Your task to perform on an android device: check google app version Image 0: 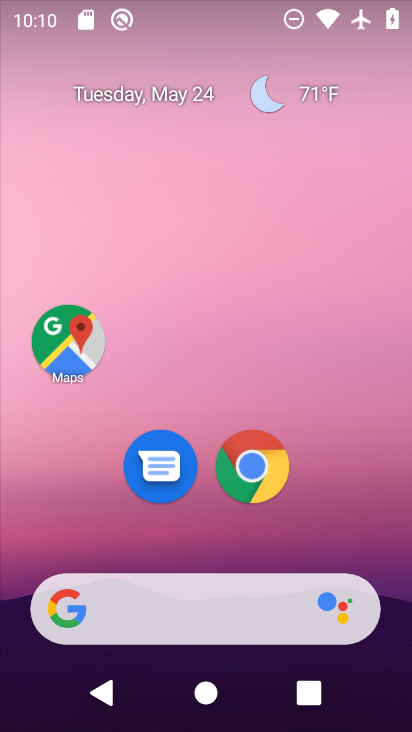
Step 0: drag from (203, 554) to (274, 2)
Your task to perform on an android device: check google app version Image 1: 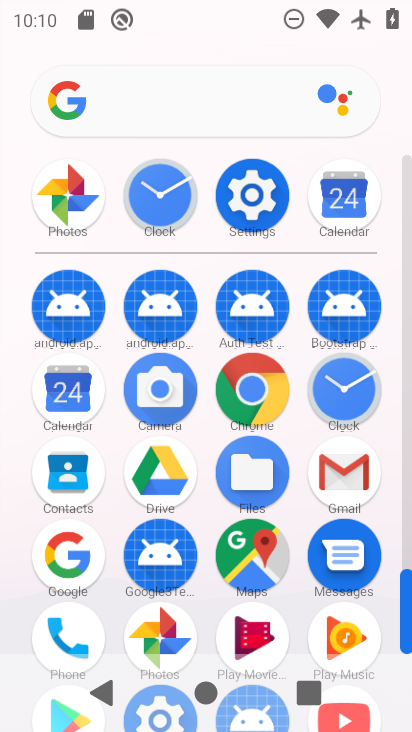
Step 1: click (248, 213)
Your task to perform on an android device: check google app version Image 2: 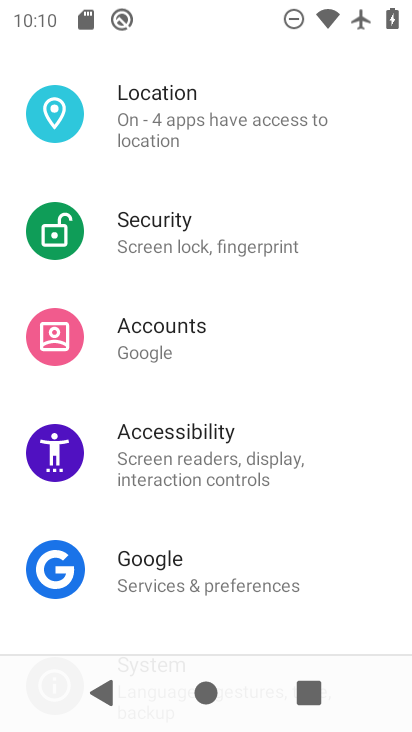
Step 2: drag from (147, 535) to (216, 159)
Your task to perform on an android device: check google app version Image 3: 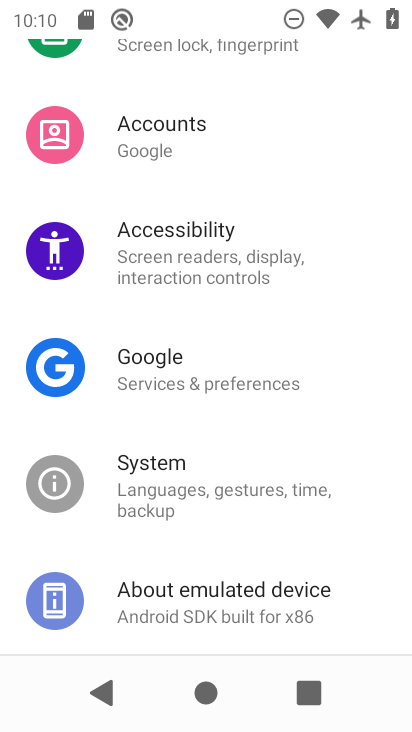
Step 3: drag from (221, 607) to (239, 320)
Your task to perform on an android device: check google app version Image 4: 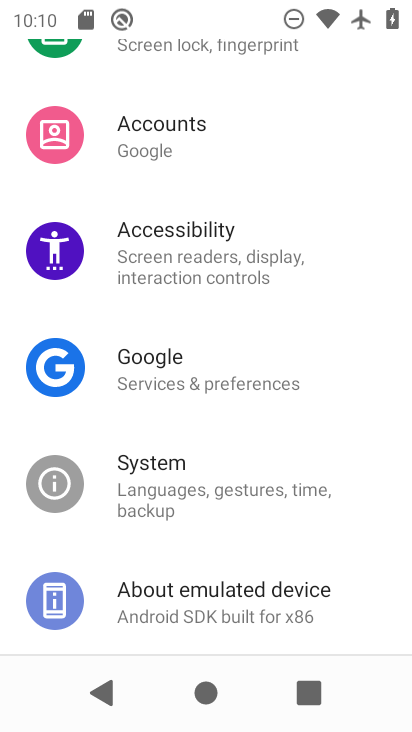
Step 4: press home button
Your task to perform on an android device: check google app version Image 5: 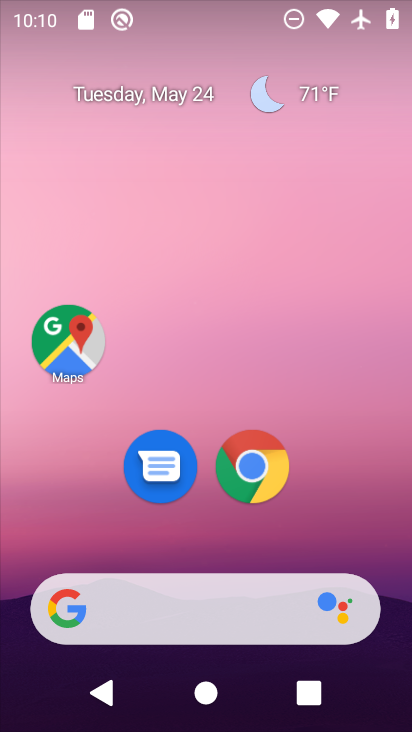
Step 5: click (166, 617)
Your task to perform on an android device: check google app version Image 6: 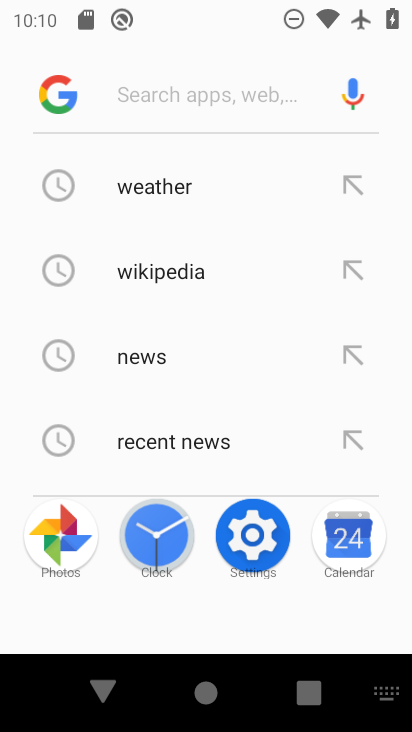
Step 6: click (45, 84)
Your task to perform on an android device: check google app version Image 7: 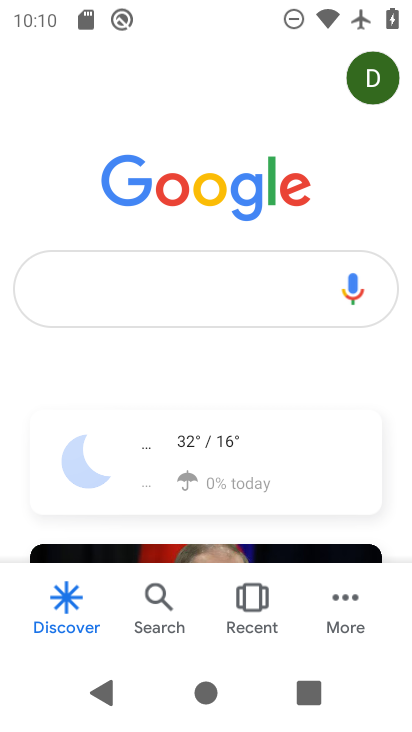
Step 7: click (354, 615)
Your task to perform on an android device: check google app version Image 8: 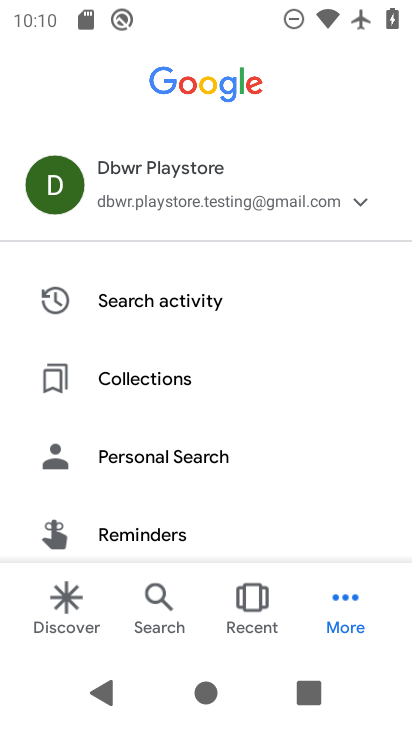
Step 8: drag from (118, 489) to (124, 293)
Your task to perform on an android device: check google app version Image 9: 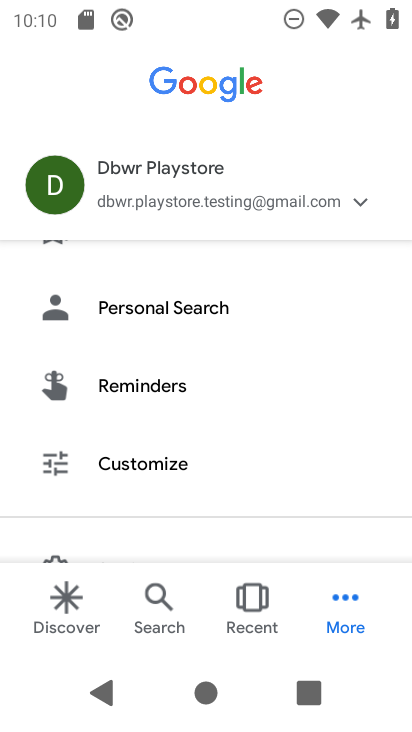
Step 9: drag from (171, 502) to (175, 313)
Your task to perform on an android device: check google app version Image 10: 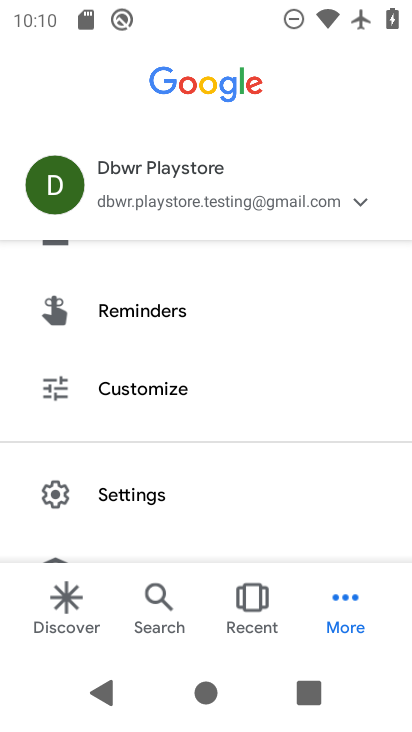
Step 10: click (141, 499)
Your task to perform on an android device: check google app version Image 11: 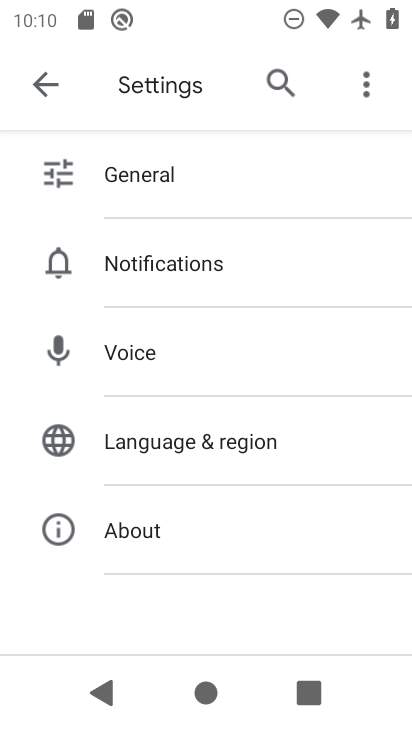
Step 11: click (135, 522)
Your task to perform on an android device: check google app version Image 12: 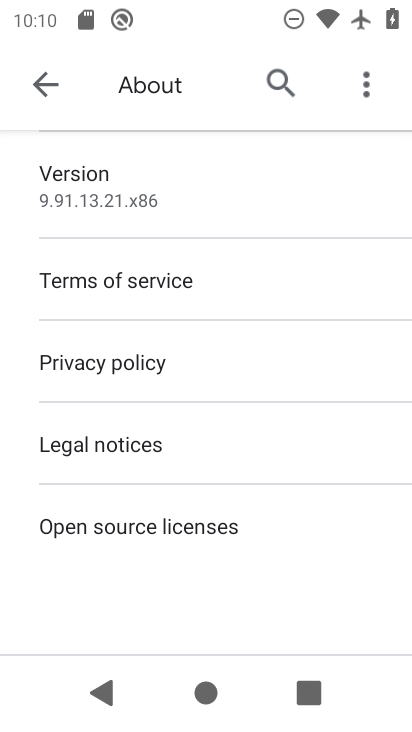
Step 12: task complete